Your task to perform on an android device: turn on data saver in the chrome app Image 0: 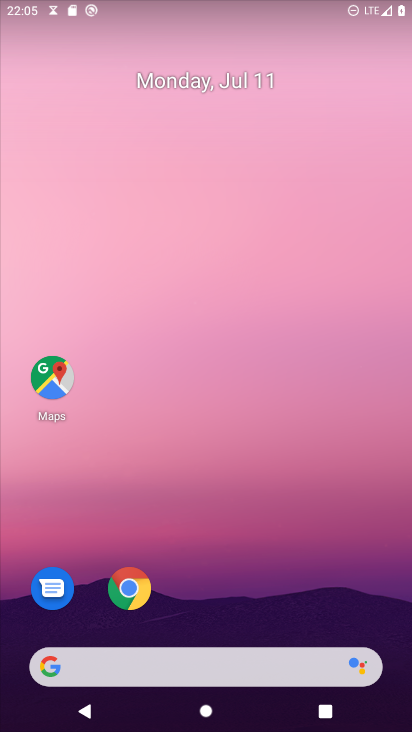
Step 0: click (133, 584)
Your task to perform on an android device: turn on data saver in the chrome app Image 1: 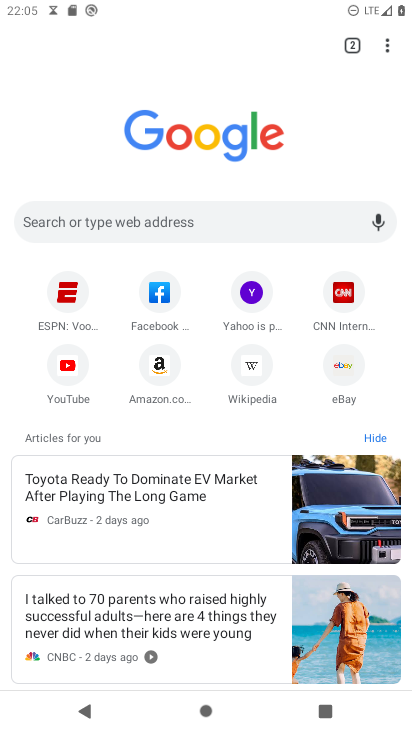
Step 1: drag from (380, 47) to (249, 380)
Your task to perform on an android device: turn on data saver in the chrome app Image 2: 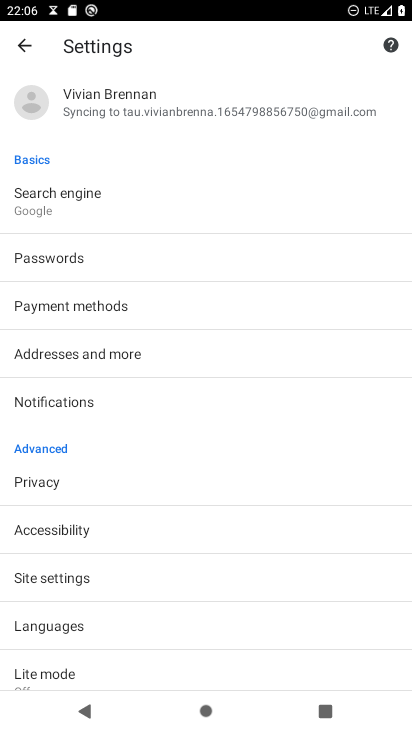
Step 2: click (39, 671)
Your task to perform on an android device: turn on data saver in the chrome app Image 3: 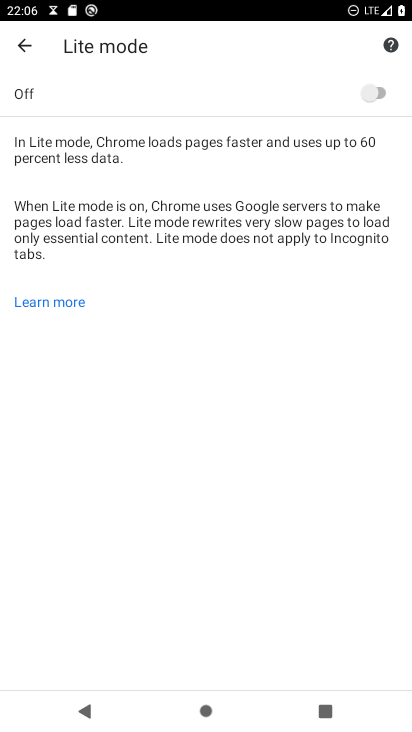
Step 3: click (375, 84)
Your task to perform on an android device: turn on data saver in the chrome app Image 4: 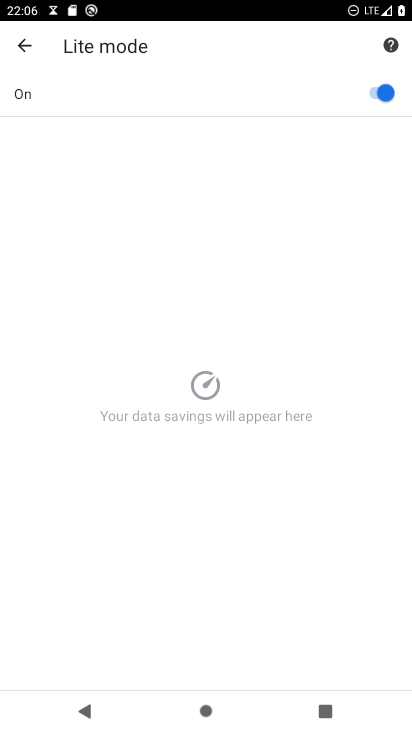
Step 4: task complete